Your task to perform on an android device: turn on showing notifications on the lock screen Image 0: 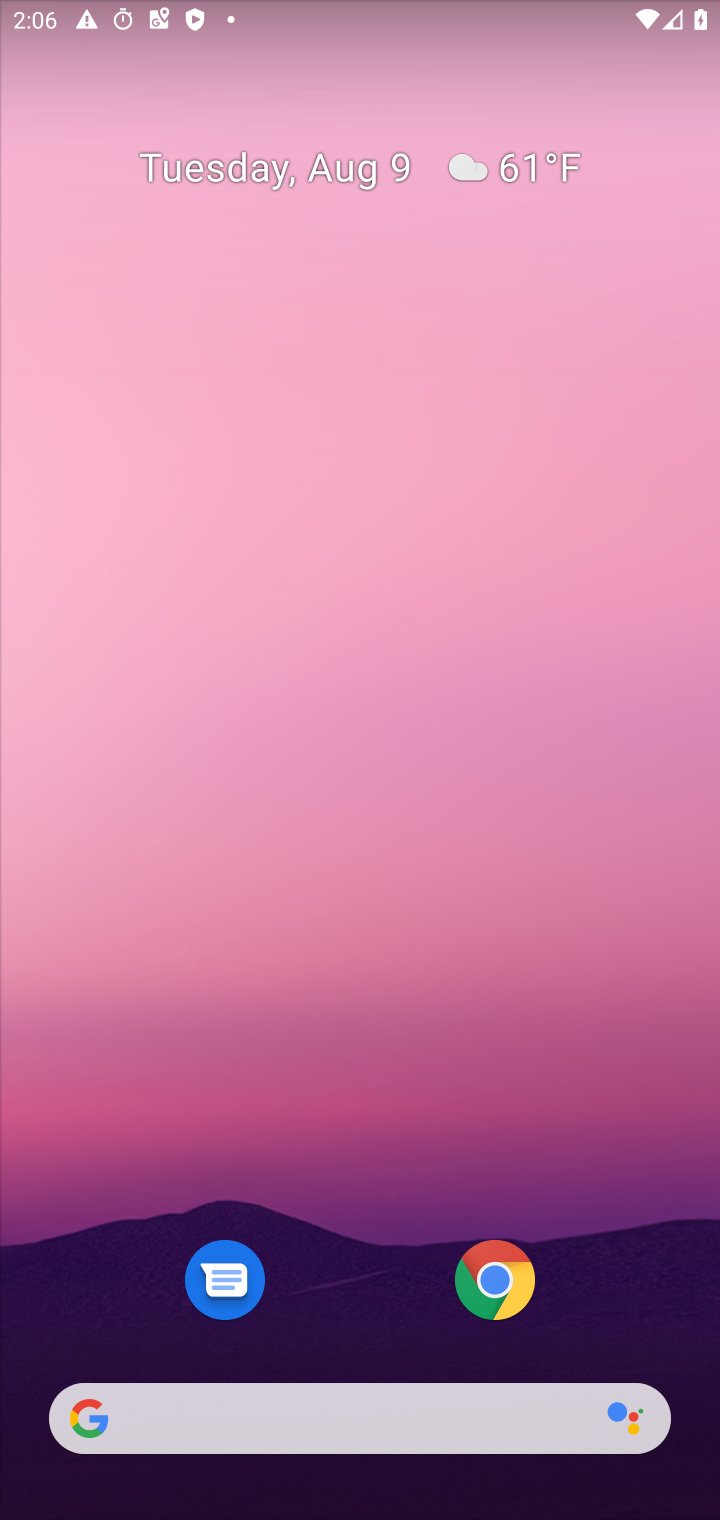
Step 0: press home button
Your task to perform on an android device: turn on showing notifications on the lock screen Image 1: 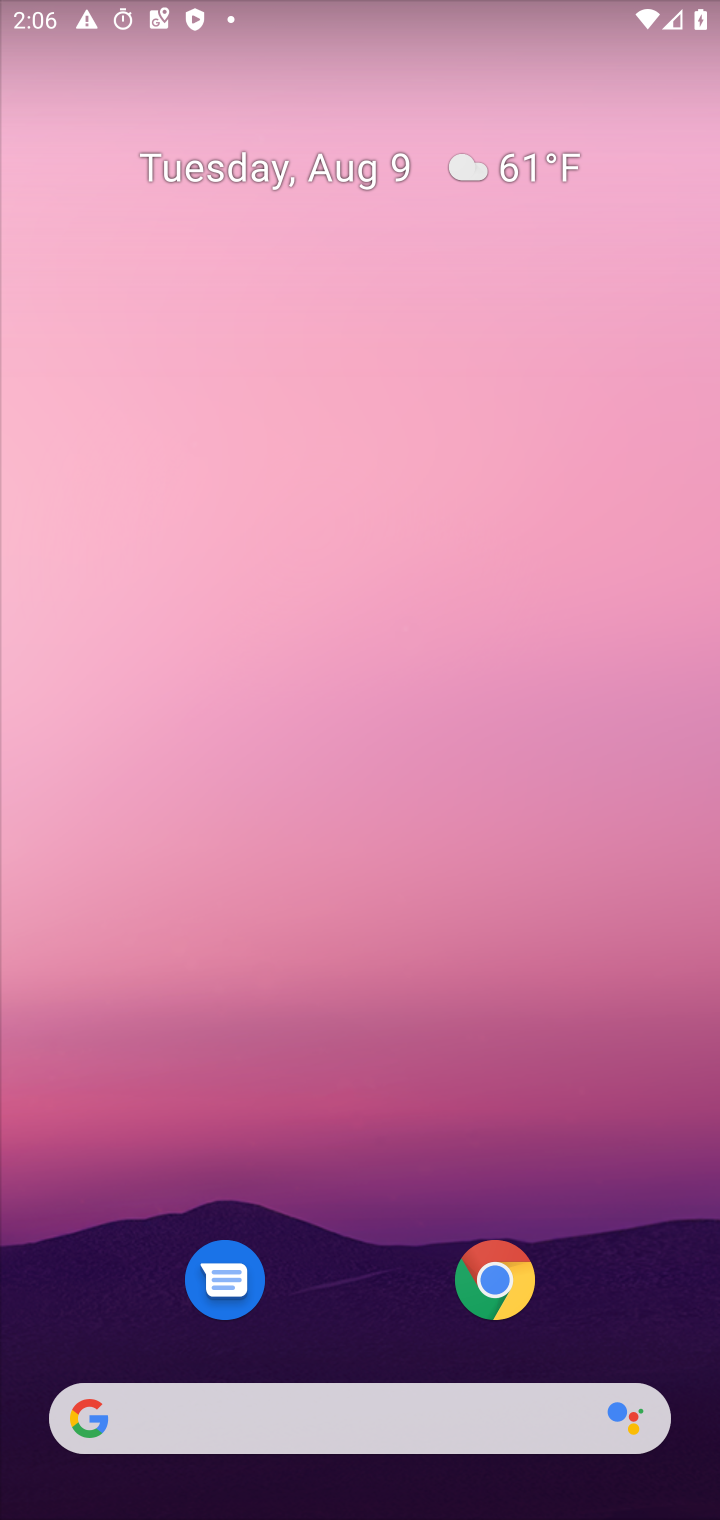
Step 1: drag from (286, 1334) to (528, 509)
Your task to perform on an android device: turn on showing notifications on the lock screen Image 2: 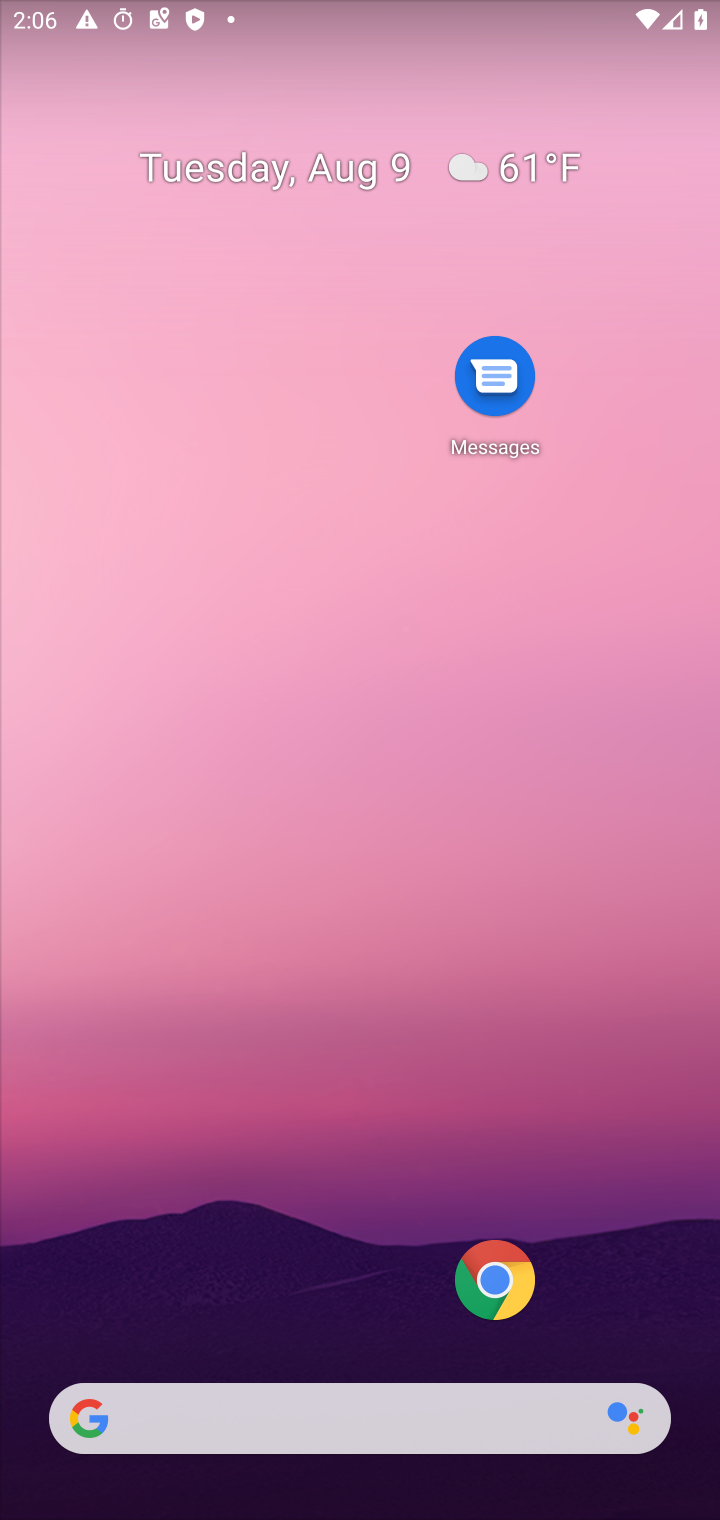
Step 2: drag from (356, 1214) to (548, 514)
Your task to perform on an android device: turn on showing notifications on the lock screen Image 3: 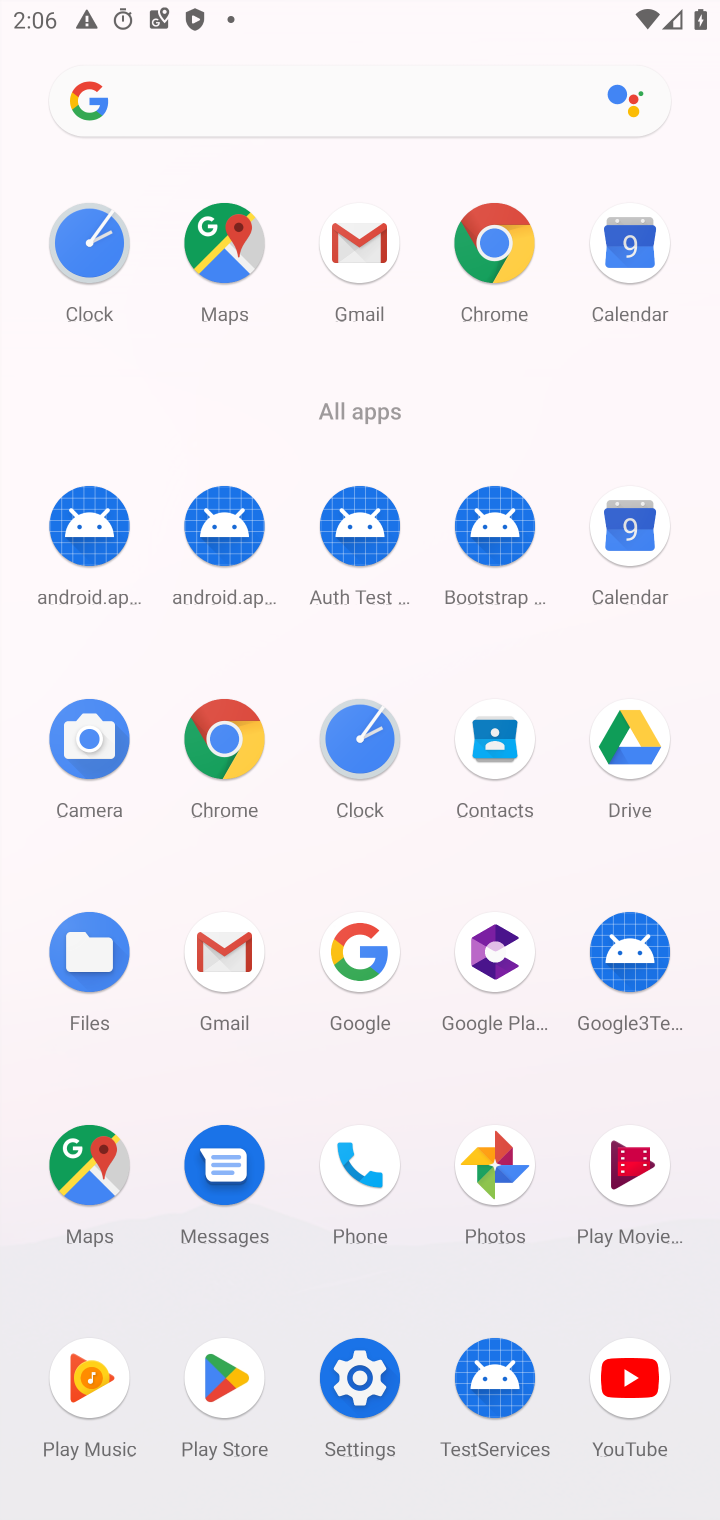
Step 3: click (357, 1370)
Your task to perform on an android device: turn on showing notifications on the lock screen Image 4: 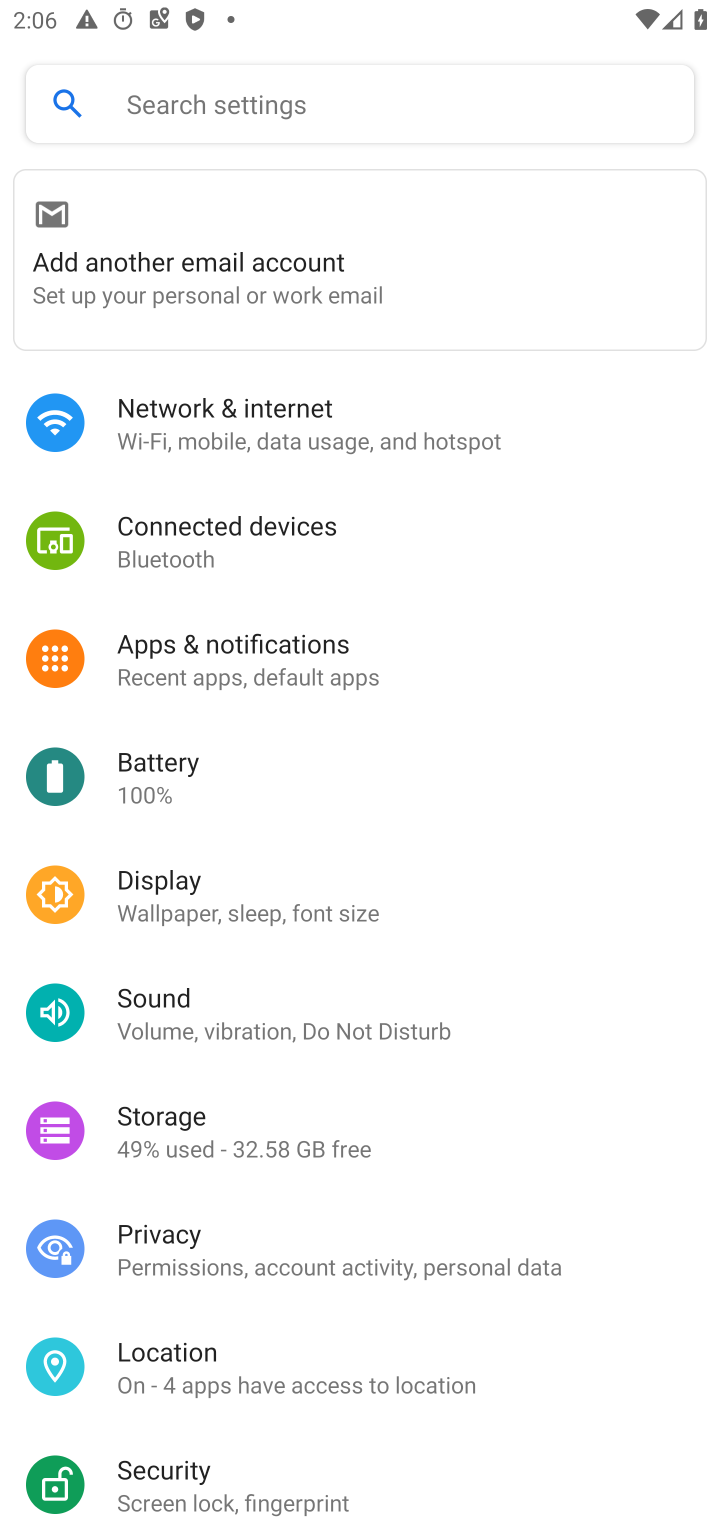
Step 4: click (292, 646)
Your task to perform on an android device: turn on showing notifications on the lock screen Image 5: 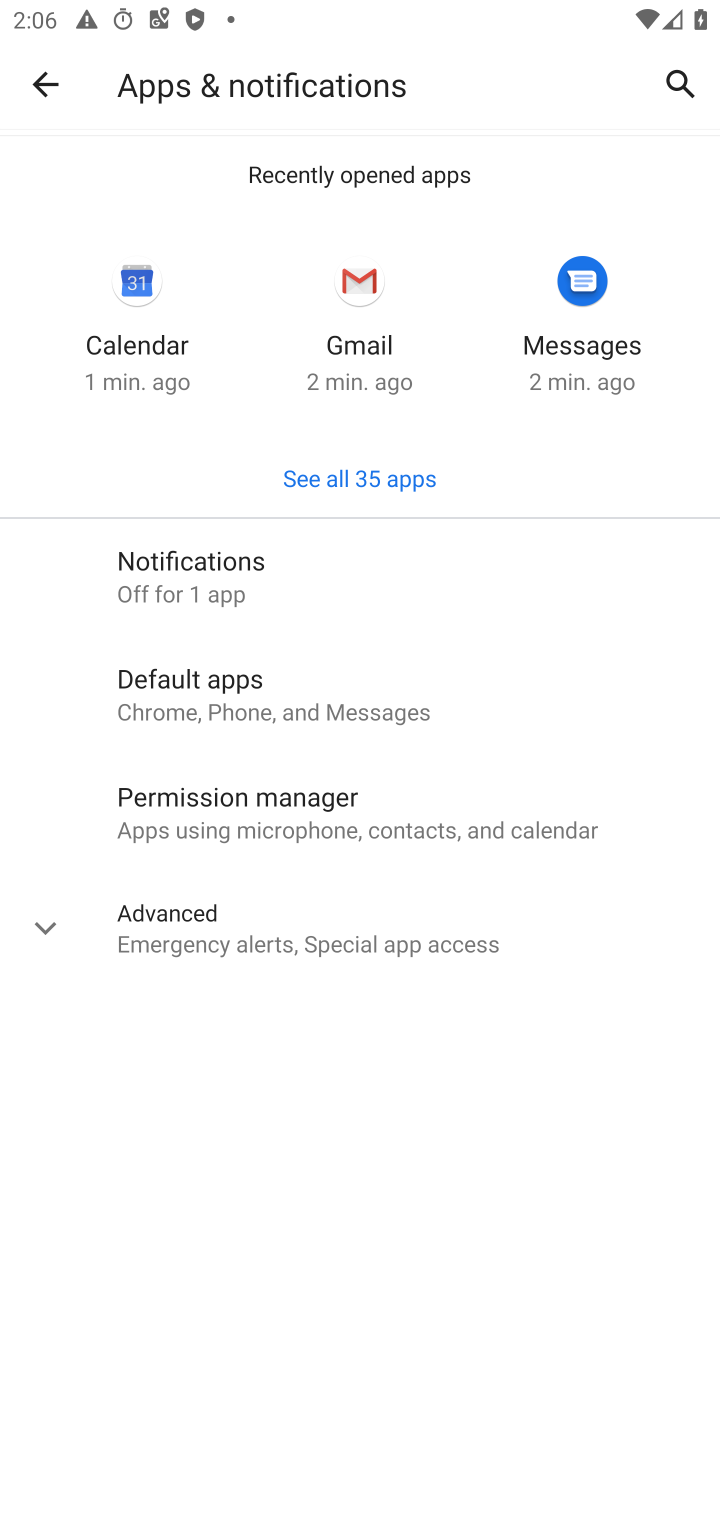
Step 5: click (219, 560)
Your task to perform on an android device: turn on showing notifications on the lock screen Image 6: 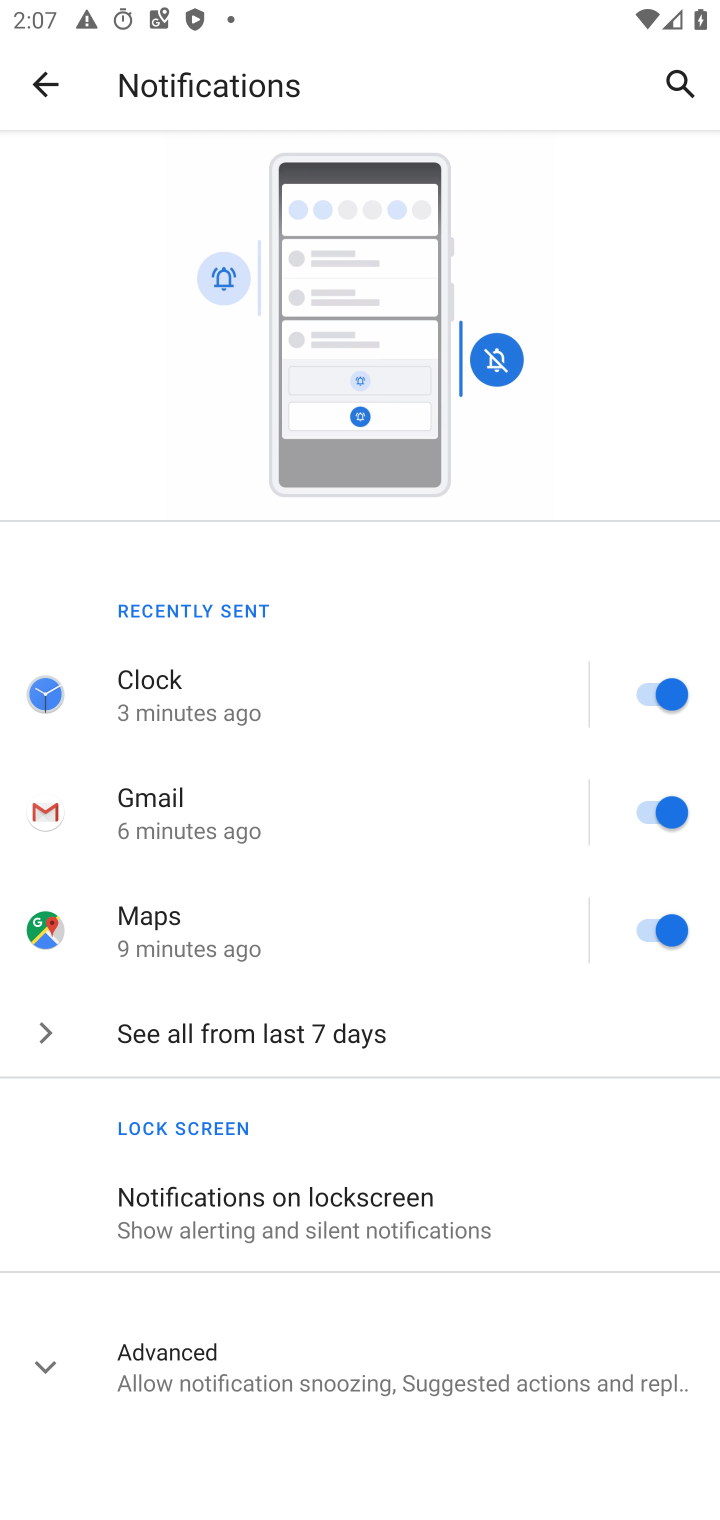
Step 6: click (254, 1378)
Your task to perform on an android device: turn on showing notifications on the lock screen Image 7: 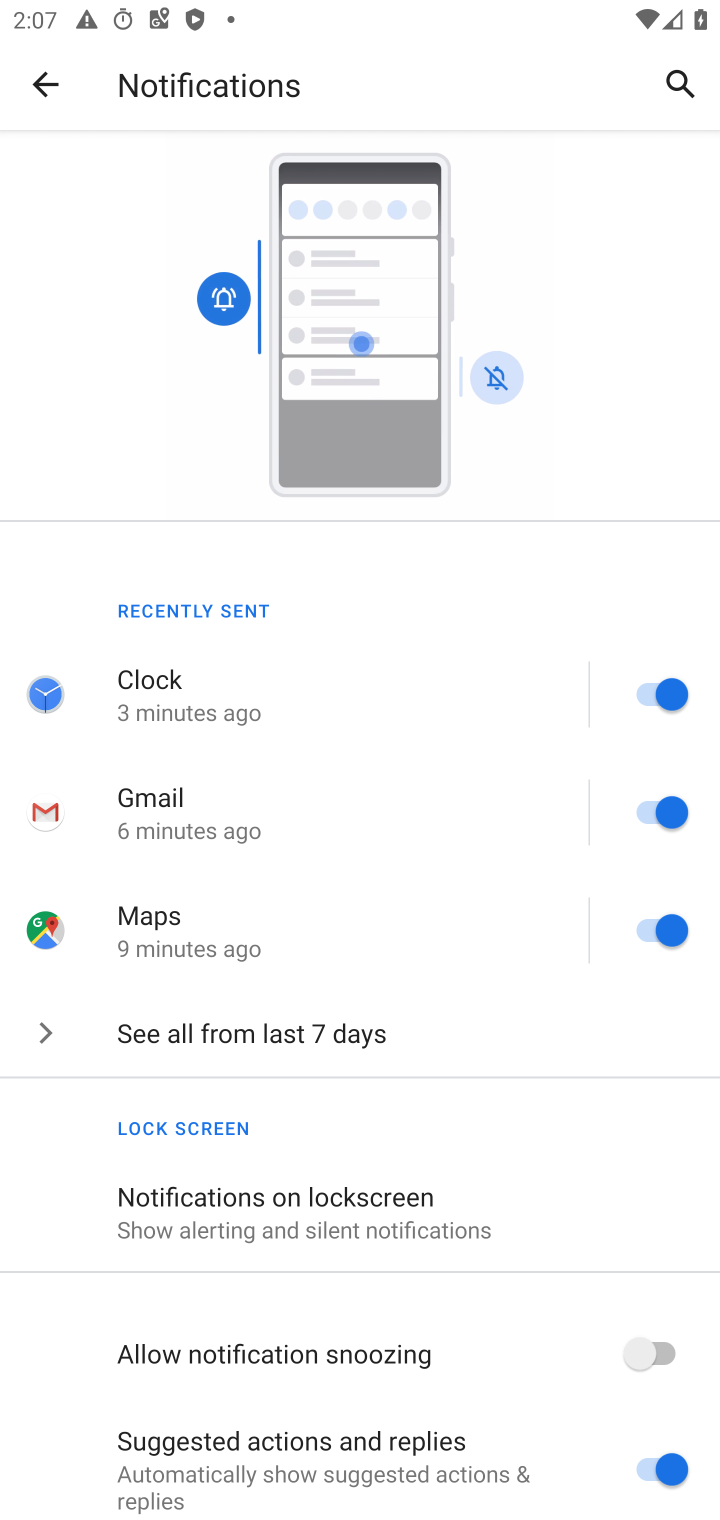
Step 7: drag from (357, 1176) to (399, 659)
Your task to perform on an android device: turn on showing notifications on the lock screen Image 8: 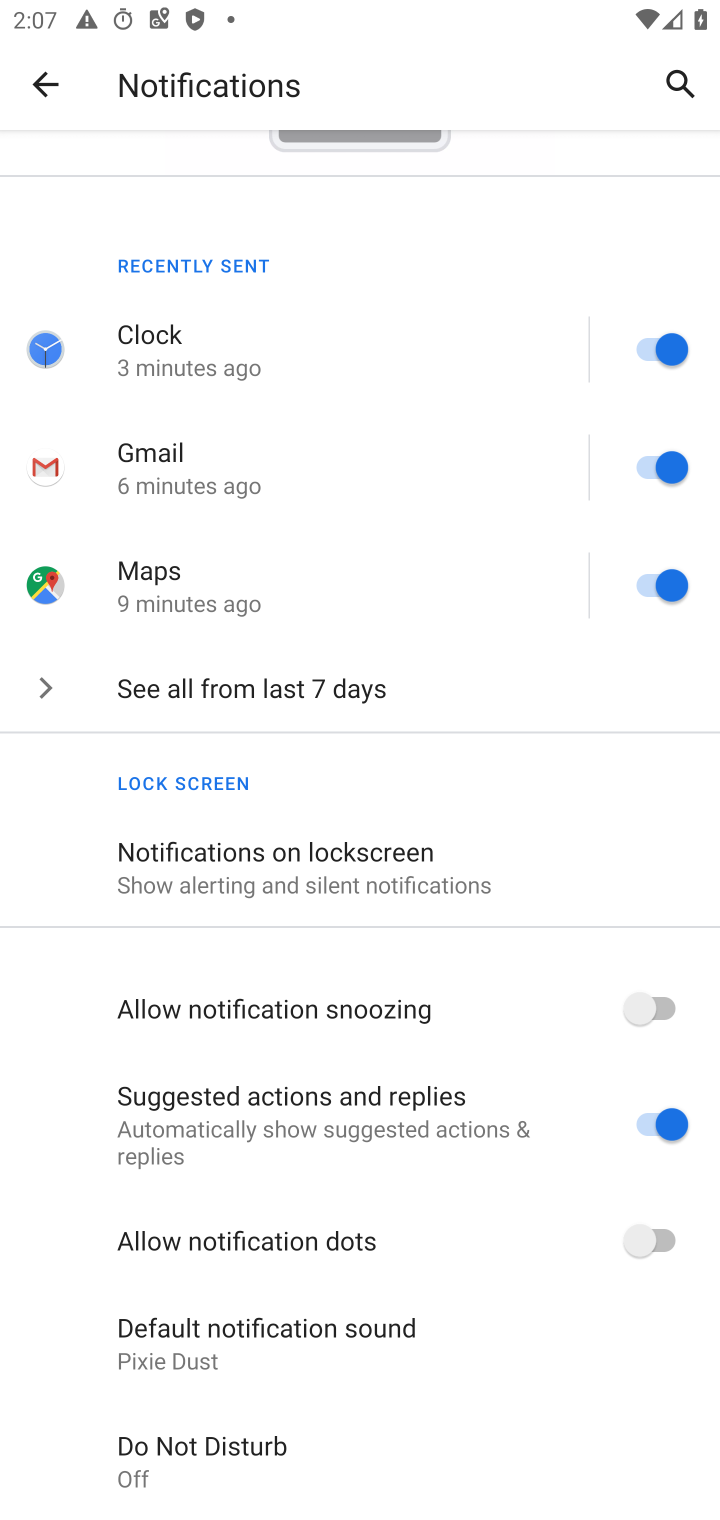
Step 8: click (329, 861)
Your task to perform on an android device: turn on showing notifications on the lock screen Image 9: 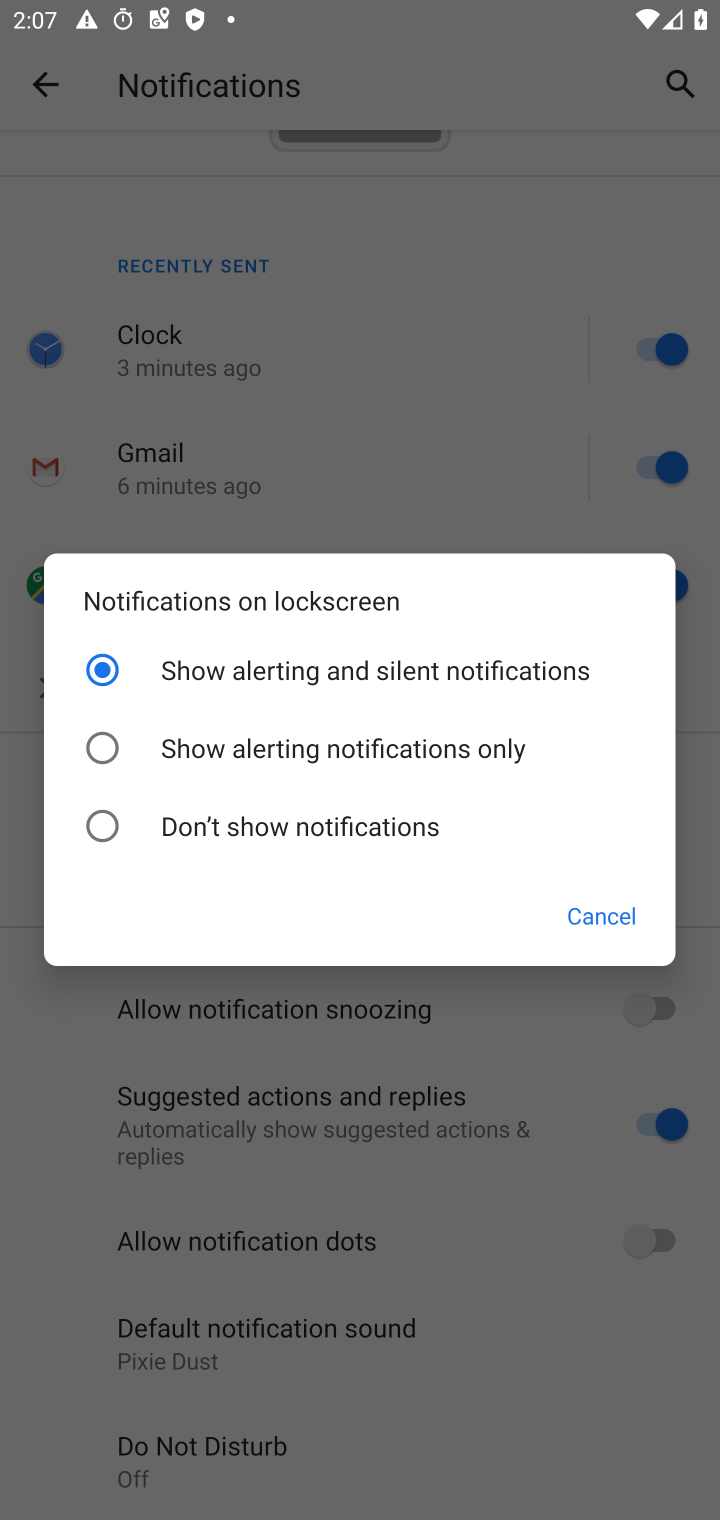
Step 9: task complete